Your task to perform on an android device: turn on the 12-hour format for clock Image 0: 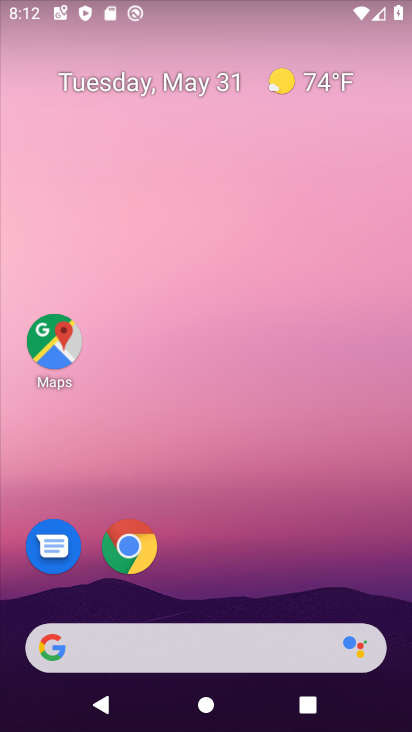
Step 0: drag from (237, 572) to (325, 67)
Your task to perform on an android device: turn on the 12-hour format for clock Image 1: 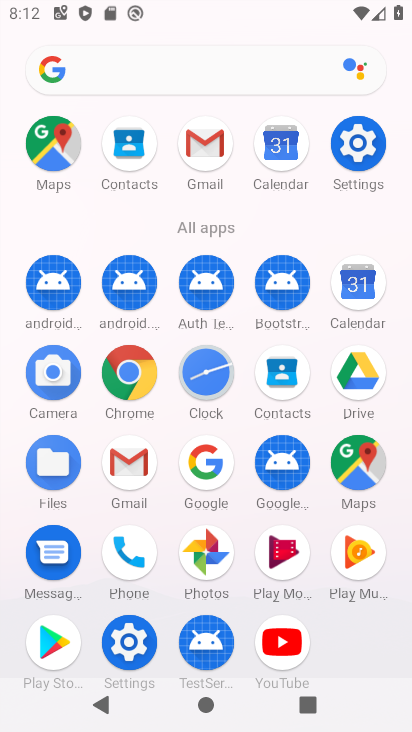
Step 1: click (214, 359)
Your task to perform on an android device: turn on the 12-hour format for clock Image 2: 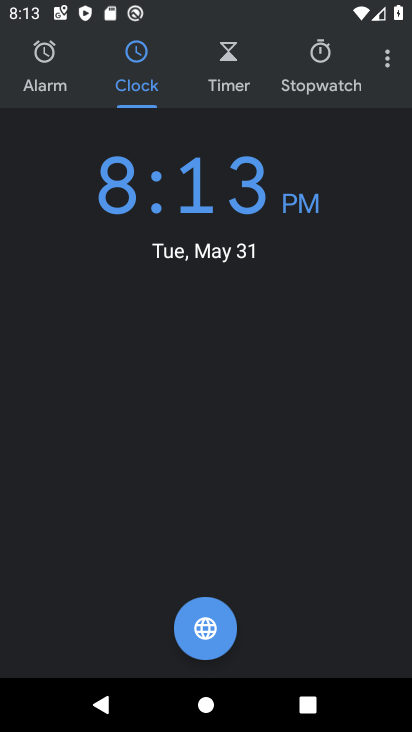
Step 2: click (379, 50)
Your task to perform on an android device: turn on the 12-hour format for clock Image 3: 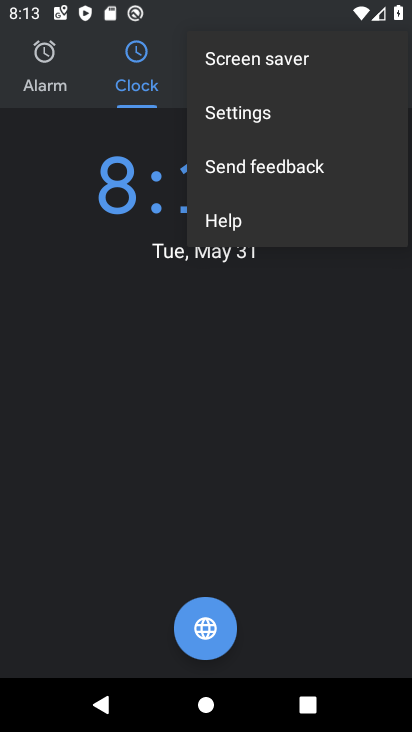
Step 3: click (258, 119)
Your task to perform on an android device: turn on the 12-hour format for clock Image 4: 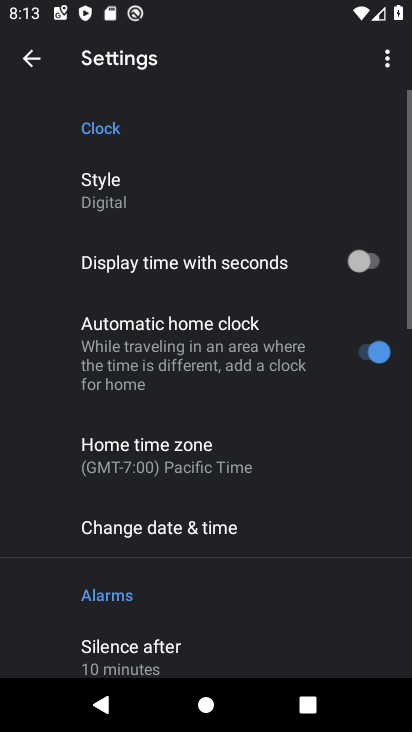
Step 4: click (186, 515)
Your task to perform on an android device: turn on the 12-hour format for clock Image 5: 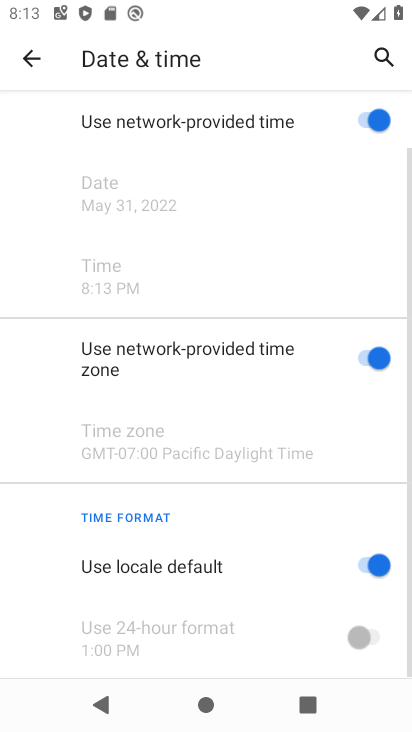
Step 5: task complete